Your task to perform on an android device: open wifi settings Image 0: 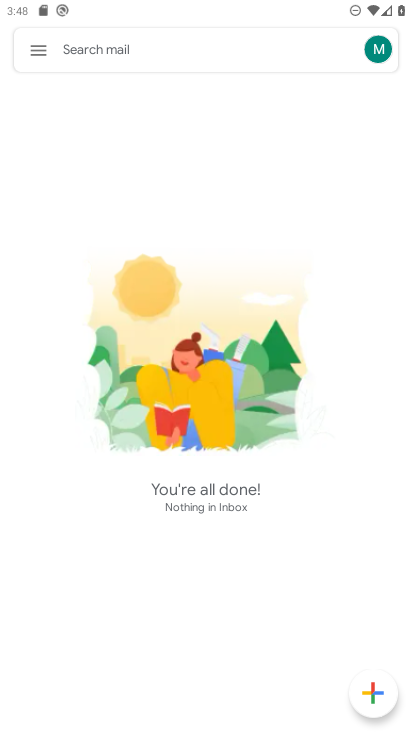
Step 0: press home button
Your task to perform on an android device: open wifi settings Image 1: 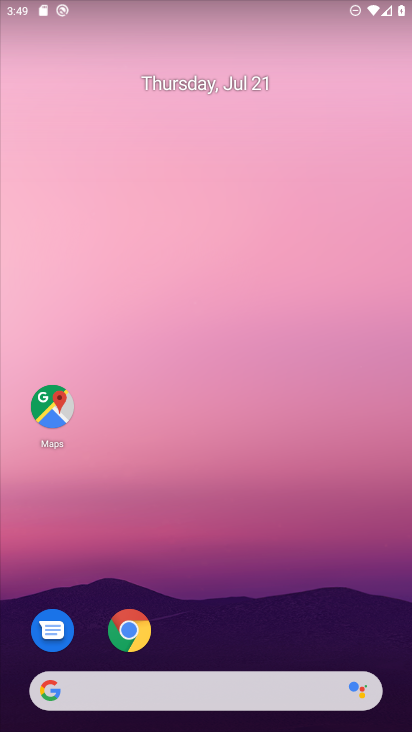
Step 1: drag from (193, 658) to (117, 109)
Your task to perform on an android device: open wifi settings Image 2: 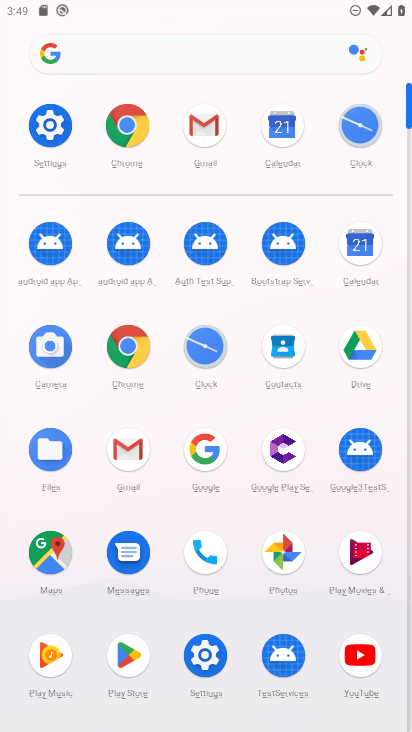
Step 2: click (60, 132)
Your task to perform on an android device: open wifi settings Image 3: 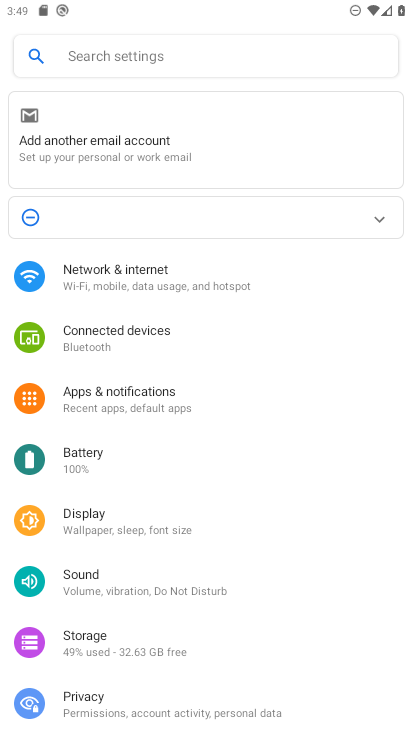
Step 3: click (101, 265)
Your task to perform on an android device: open wifi settings Image 4: 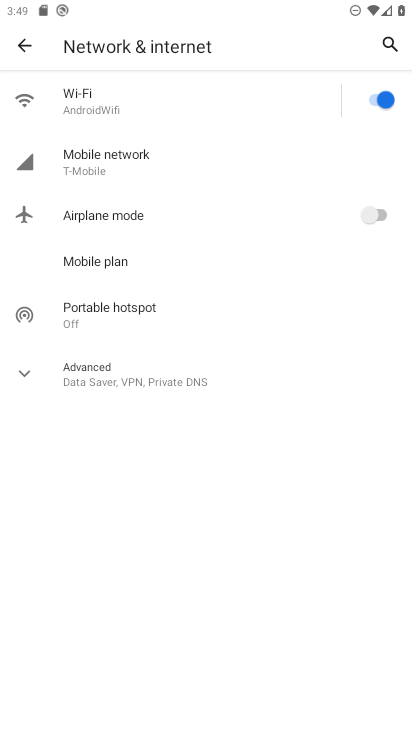
Step 4: click (113, 101)
Your task to perform on an android device: open wifi settings Image 5: 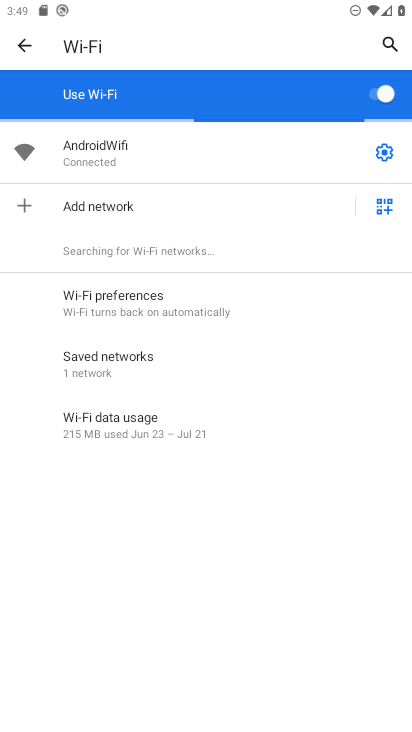
Step 5: task complete